Your task to perform on an android device: What is the news today? Image 0: 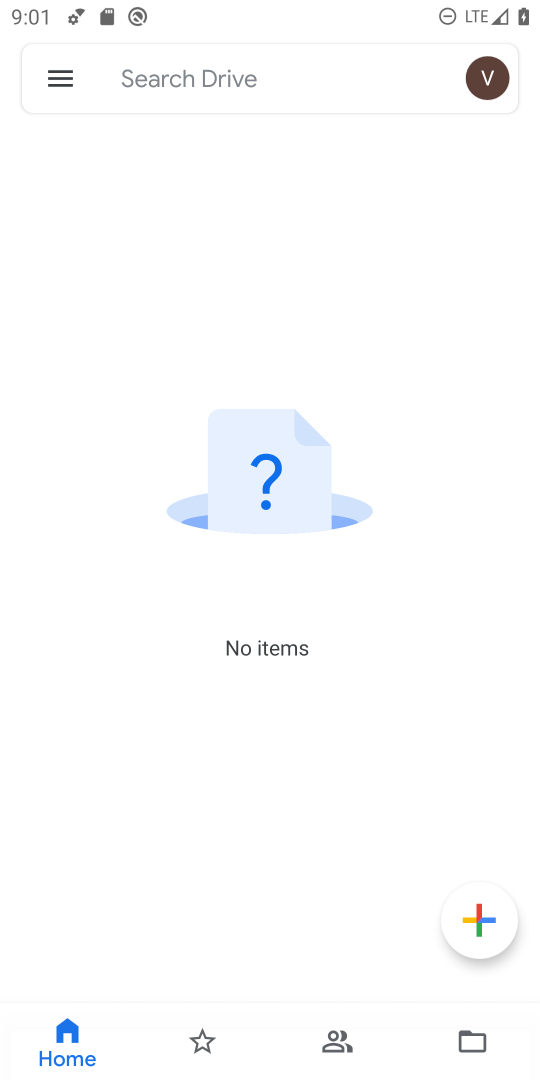
Step 0: press home button
Your task to perform on an android device: What is the news today? Image 1: 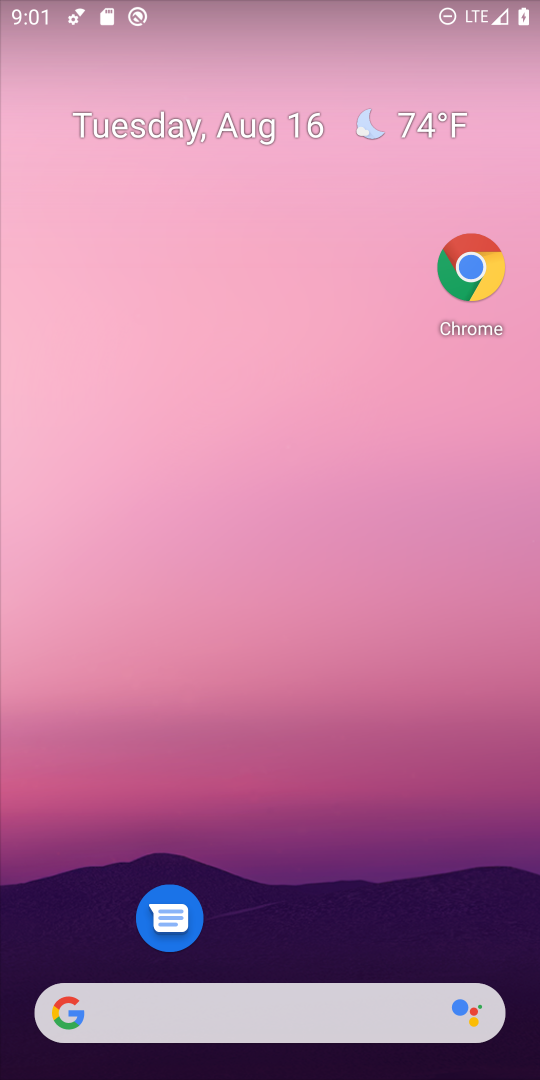
Step 1: drag from (268, 967) to (262, 309)
Your task to perform on an android device: What is the news today? Image 2: 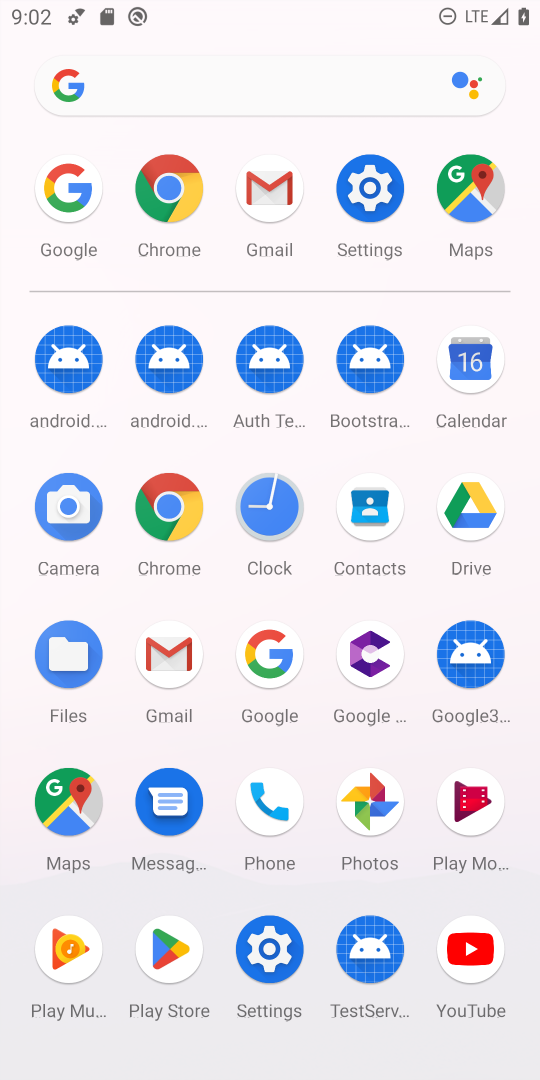
Step 2: click (275, 659)
Your task to perform on an android device: What is the news today? Image 3: 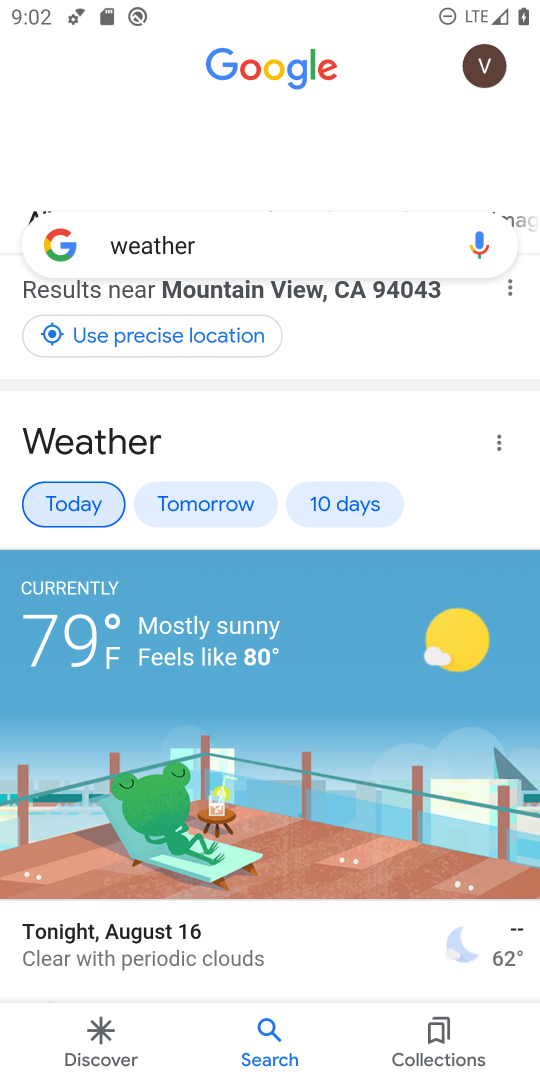
Step 3: click (317, 238)
Your task to perform on an android device: What is the news today? Image 4: 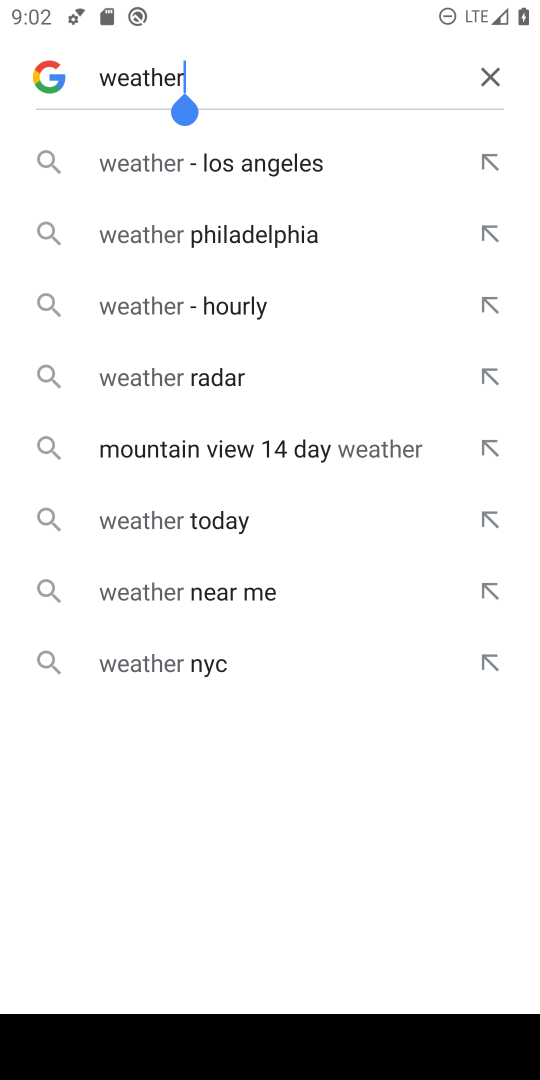
Step 4: click (503, 83)
Your task to perform on an android device: What is the news today? Image 5: 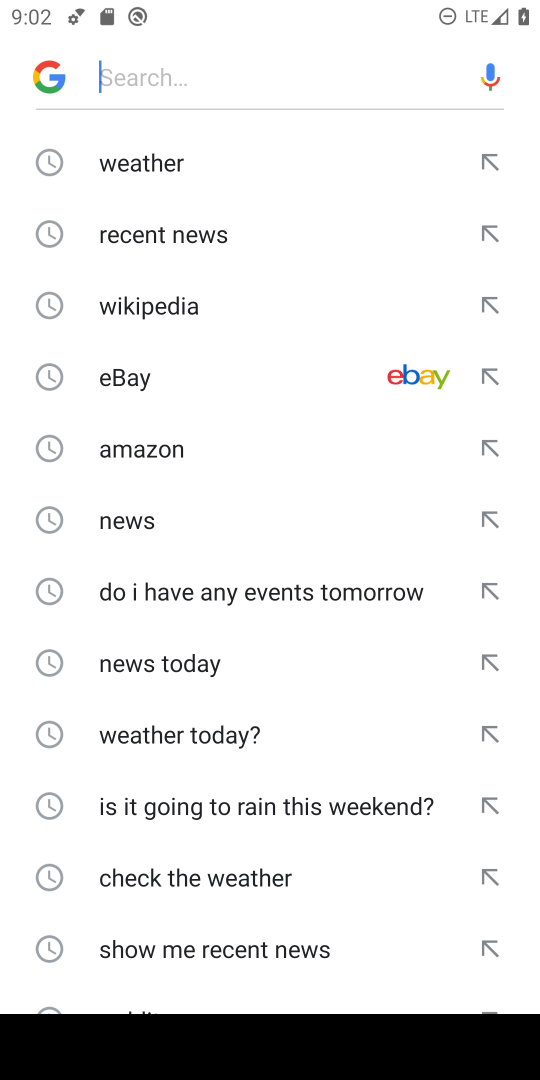
Step 5: click (226, 232)
Your task to perform on an android device: What is the news today? Image 6: 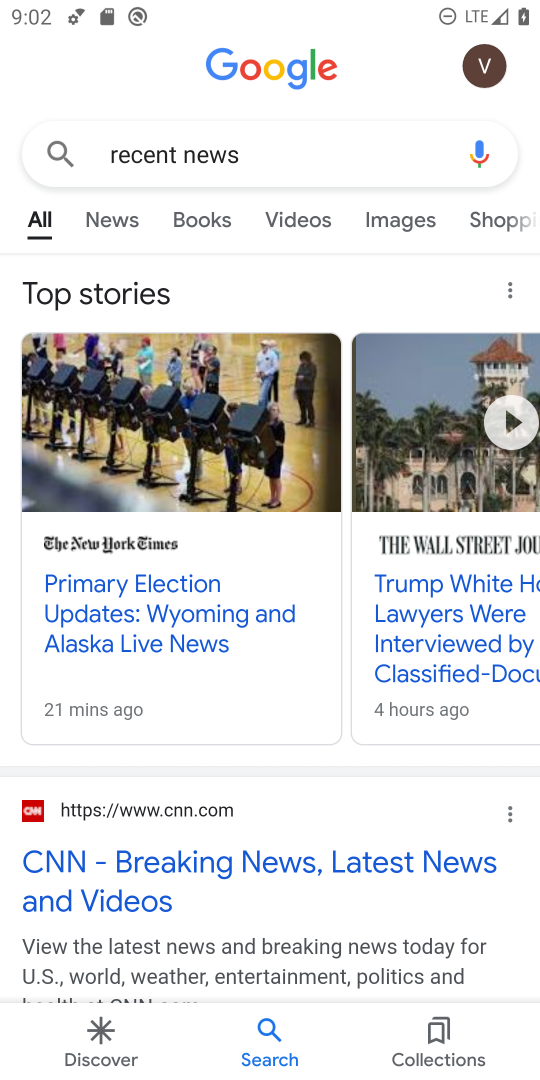
Step 6: click (110, 226)
Your task to perform on an android device: What is the news today? Image 7: 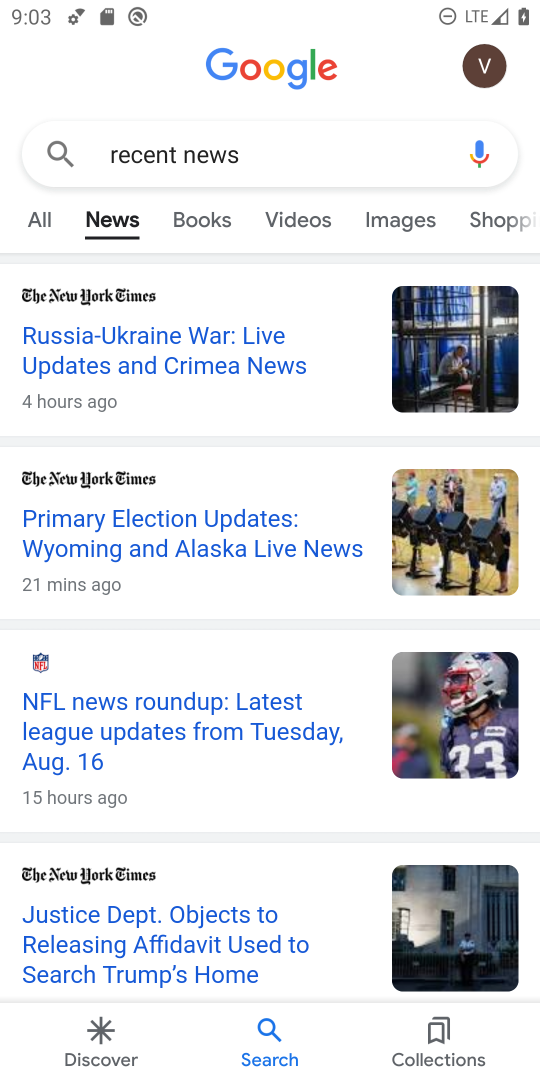
Step 7: task complete